Your task to perform on an android device: open a bookmark in the chrome app Image 0: 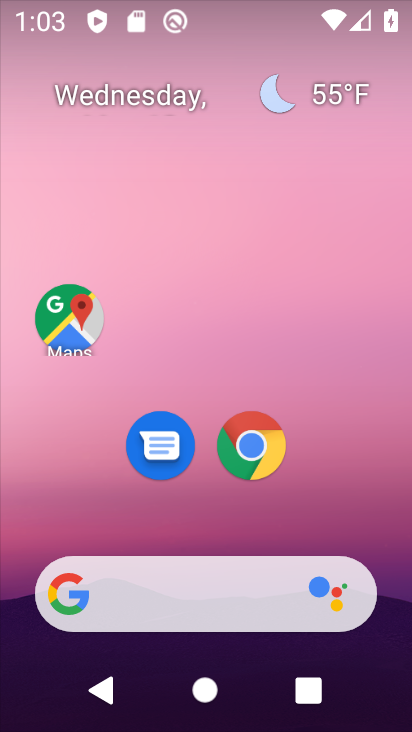
Step 0: click (252, 447)
Your task to perform on an android device: open a bookmark in the chrome app Image 1: 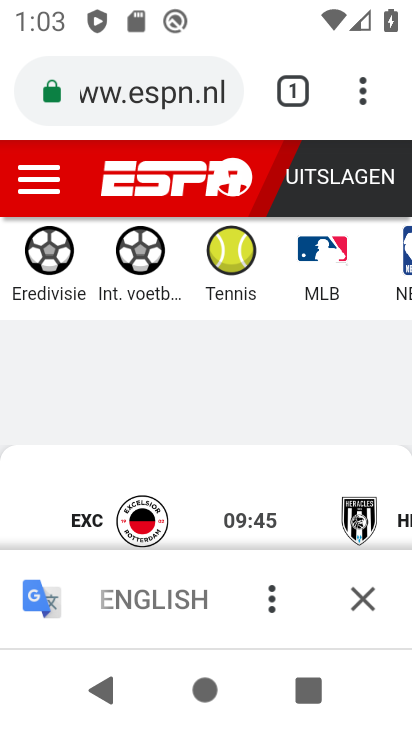
Step 1: task complete